Your task to perform on an android device: search for starred emails in the gmail app Image 0: 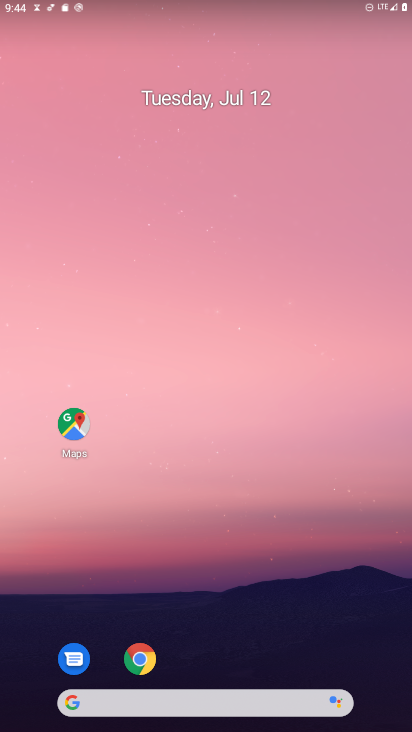
Step 0: drag from (188, 703) to (231, 154)
Your task to perform on an android device: search for starred emails in the gmail app Image 1: 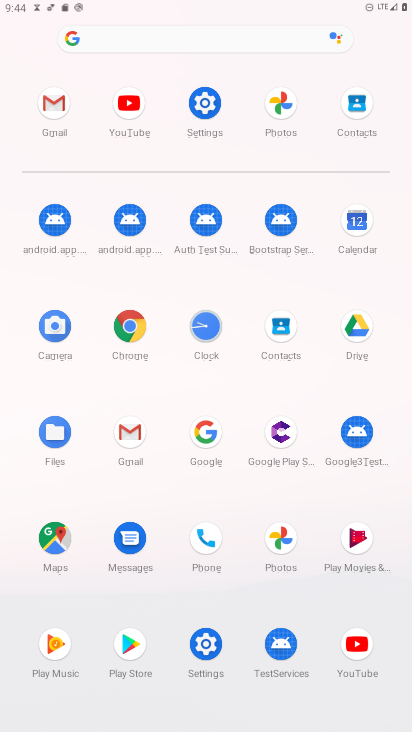
Step 1: click (52, 102)
Your task to perform on an android device: search for starred emails in the gmail app Image 2: 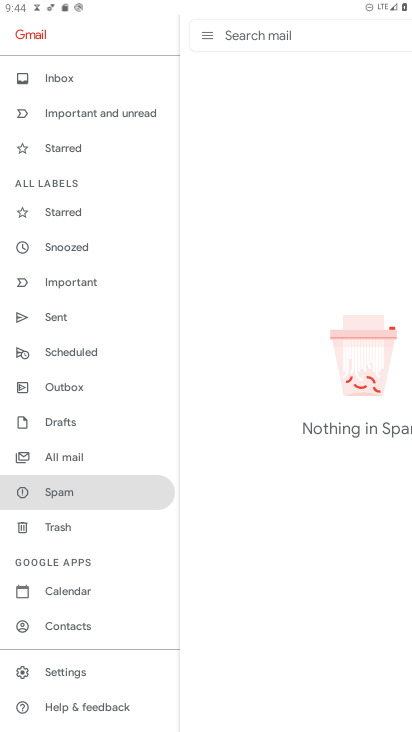
Step 2: click (69, 77)
Your task to perform on an android device: search for starred emails in the gmail app Image 3: 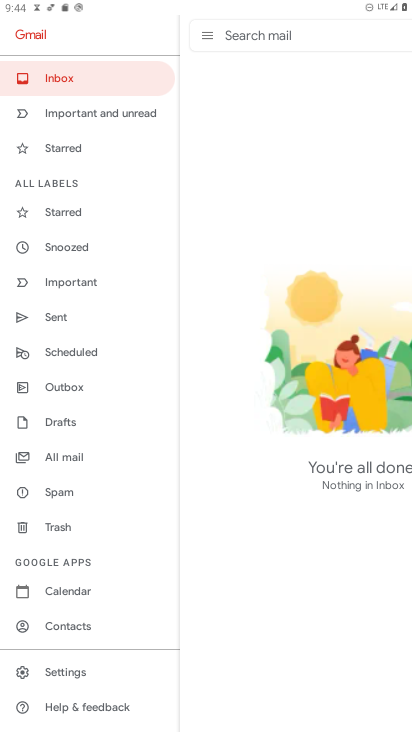
Step 3: click (71, 112)
Your task to perform on an android device: search for starred emails in the gmail app Image 4: 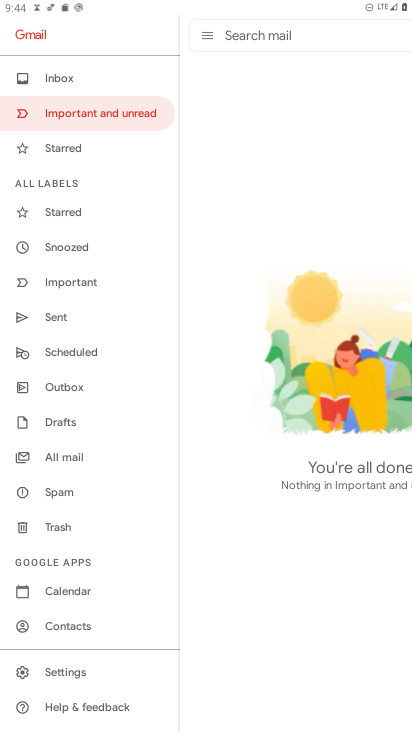
Step 4: click (66, 146)
Your task to perform on an android device: search for starred emails in the gmail app Image 5: 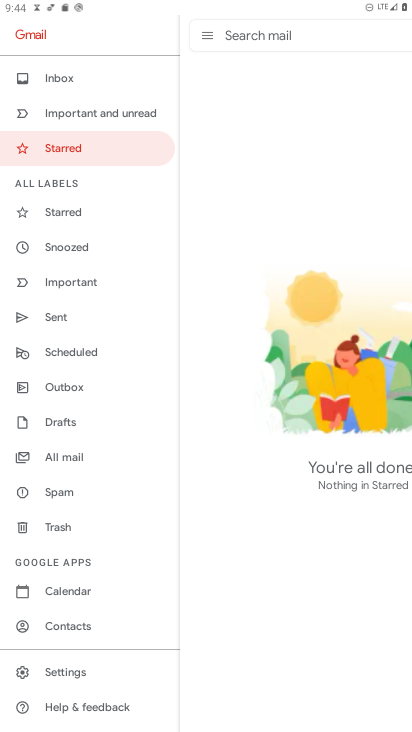
Step 5: click (64, 212)
Your task to perform on an android device: search for starred emails in the gmail app Image 6: 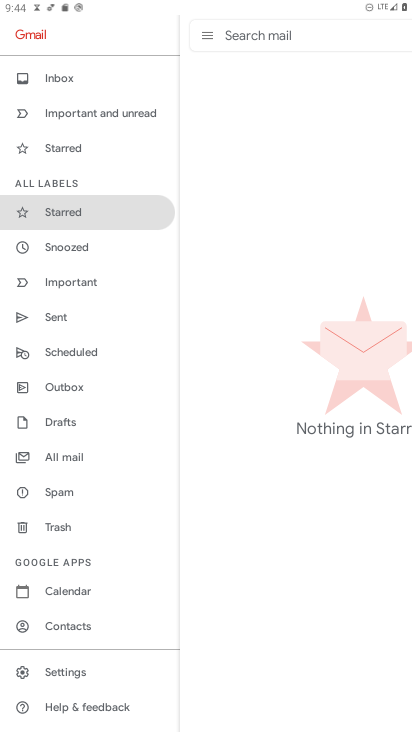
Step 6: click (69, 246)
Your task to perform on an android device: search for starred emails in the gmail app Image 7: 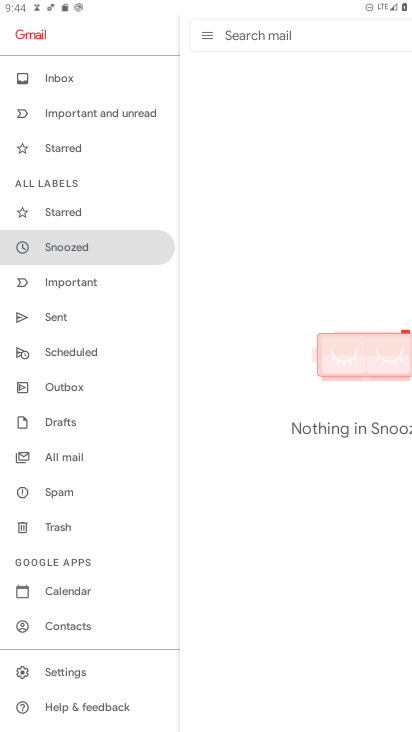
Step 7: click (73, 280)
Your task to perform on an android device: search for starred emails in the gmail app Image 8: 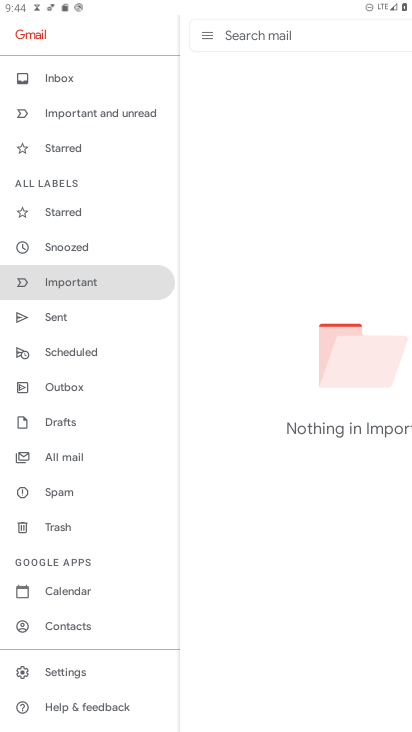
Step 8: click (63, 313)
Your task to perform on an android device: search for starred emails in the gmail app Image 9: 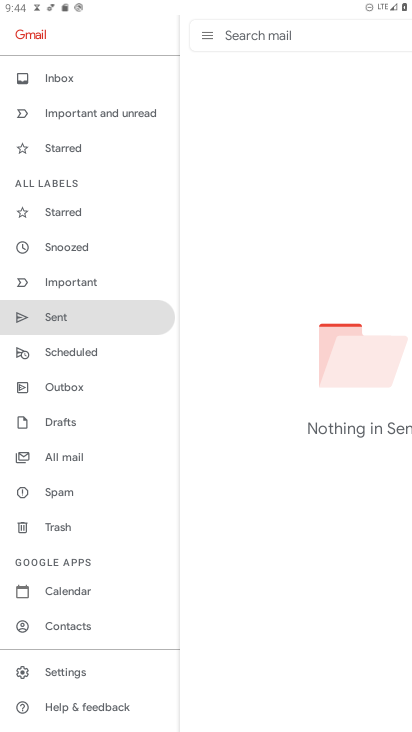
Step 9: click (69, 359)
Your task to perform on an android device: search for starred emails in the gmail app Image 10: 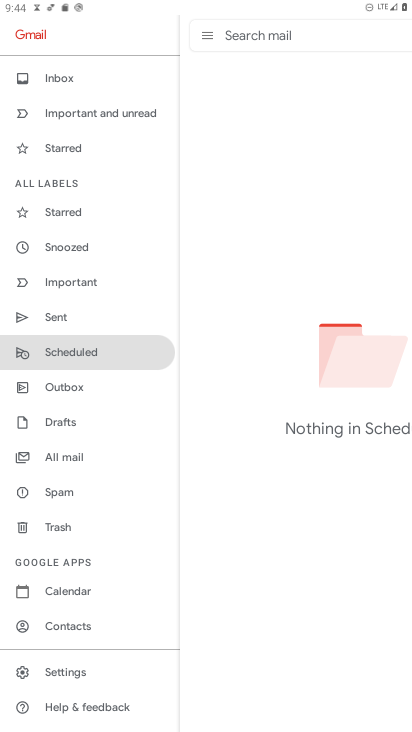
Step 10: click (67, 389)
Your task to perform on an android device: search for starred emails in the gmail app Image 11: 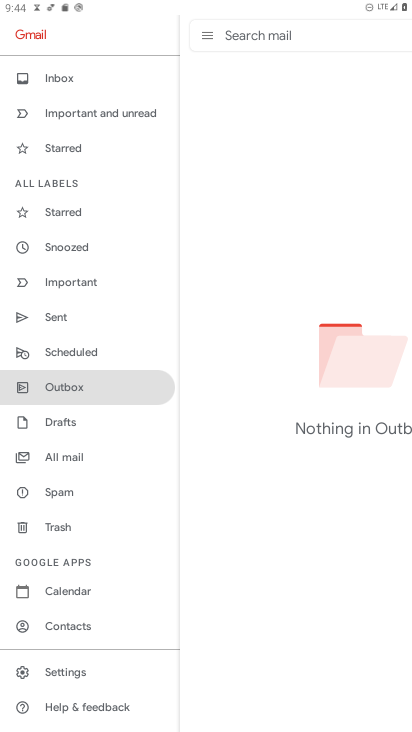
Step 11: click (63, 423)
Your task to perform on an android device: search for starred emails in the gmail app Image 12: 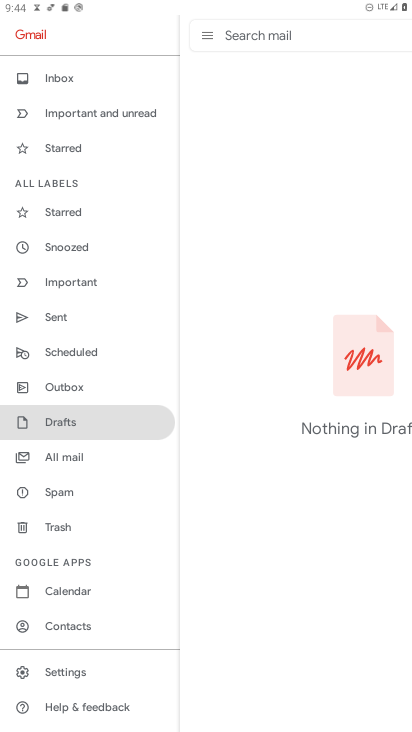
Step 12: click (76, 453)
Your task to perform on an android device: search for starred emails in the gmail app Image 13: 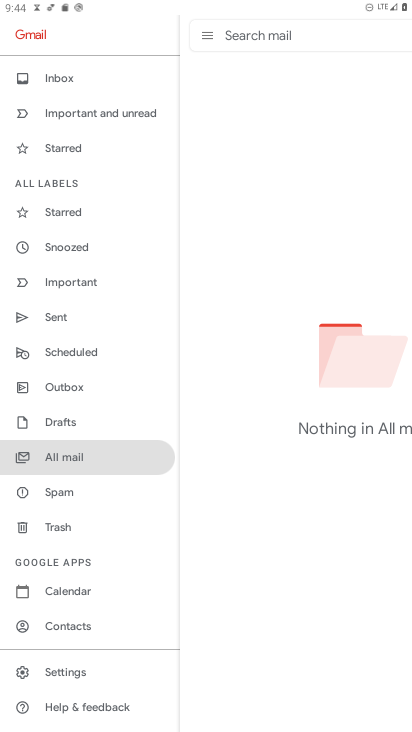
Step 13: click (67, 493)
Your task to perform on an android device: search for starred emails in the gmail app Image 14: 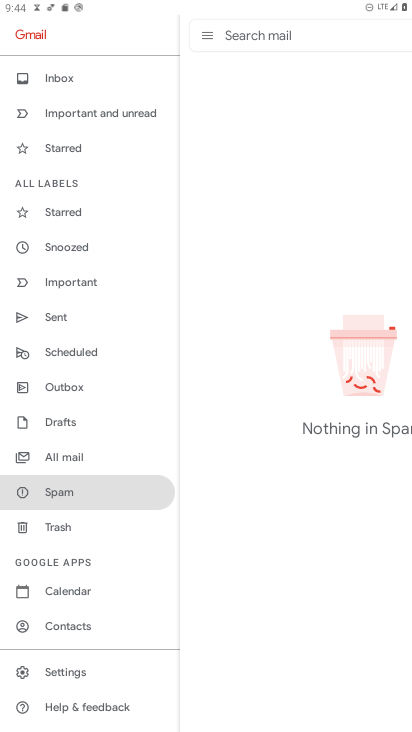
Step 14: click (63, 523)
Your task to perform on an android device: search for starred emails in the gmail app Image 15: 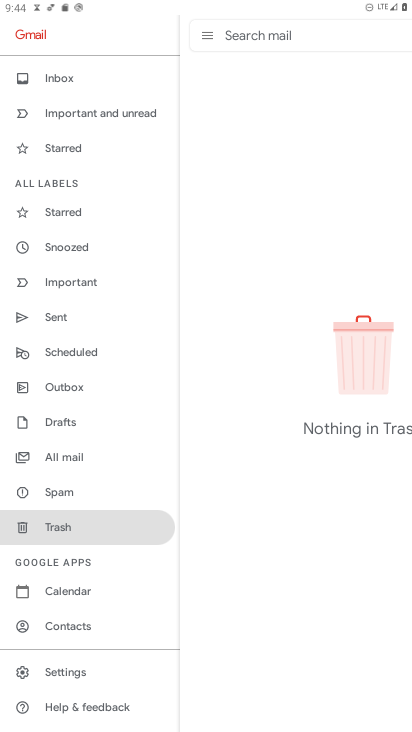
Step 15: click (73, 204)
Your task to perform on an android device: search for starred emails in the gmail app Image 16: 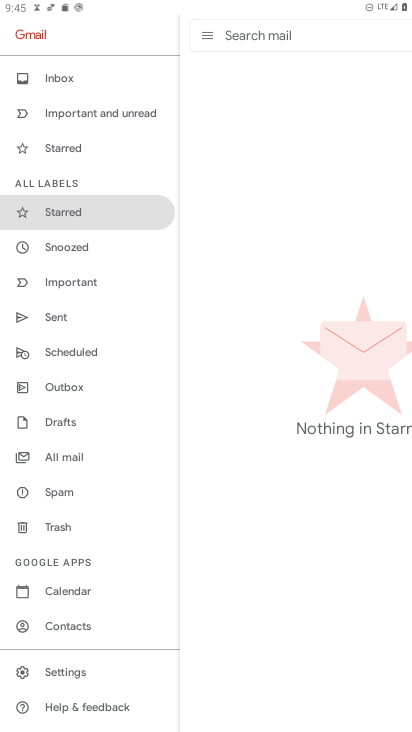
Step 16: task complete